Your task to perform on an android device: Open the stopwatch Image 0: 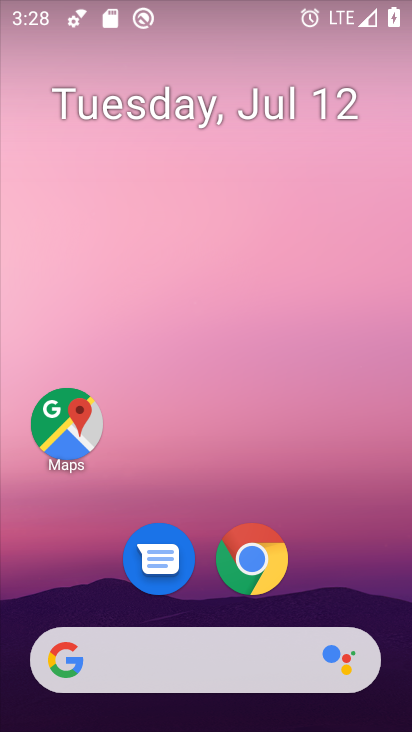
Step 0: drag from (351, 589) to (351, 178)
Your task to perform on an android device: Open the stopwatch Image 1: 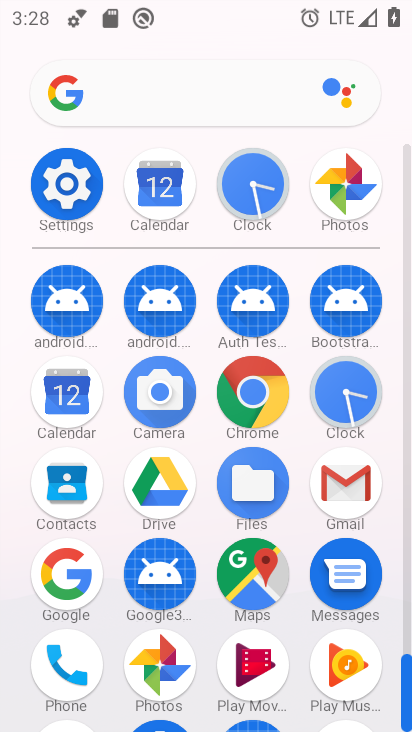
Step 1: click (357, 402)
Your task to perform on an android device: Open the stopwatch Image 2: 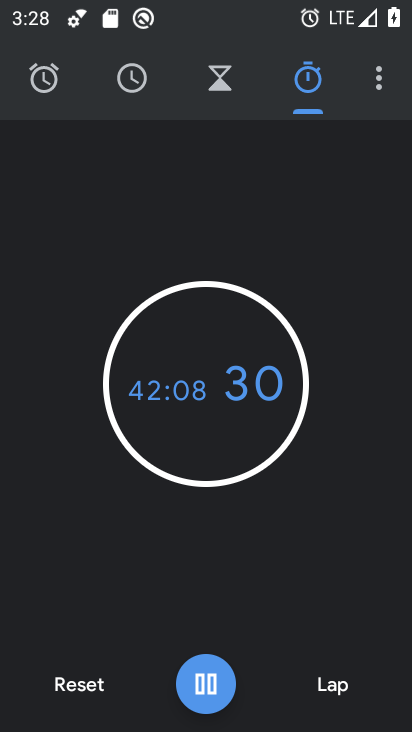
Step 2: task complete